Your task to perform on an android device: change notification settings in the gmail app Image 0: 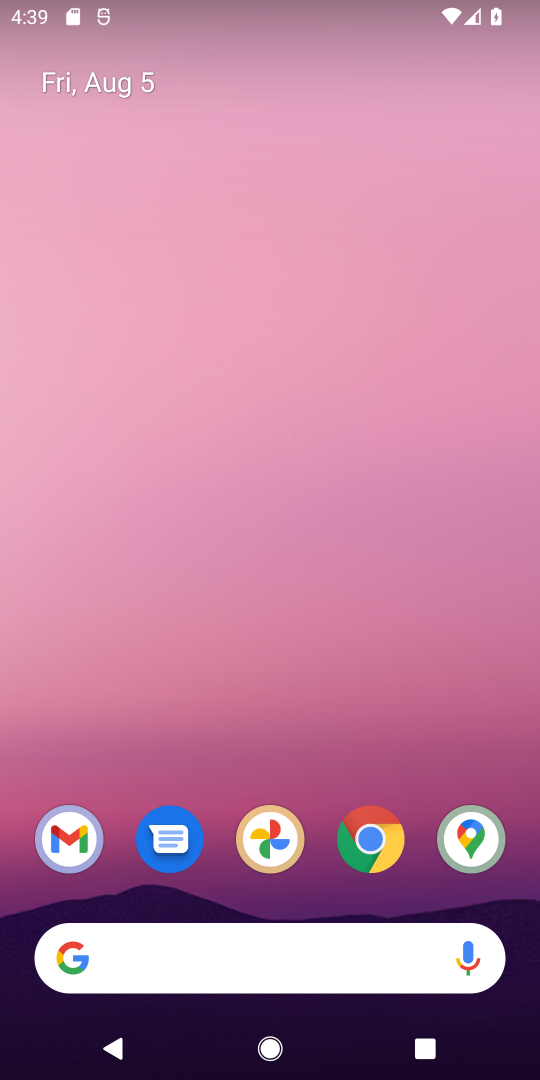
Step 0: drag from (306, 796) to (304, 146)
Your task to perform on an android device: change notification settings in the gmail app Image 1: 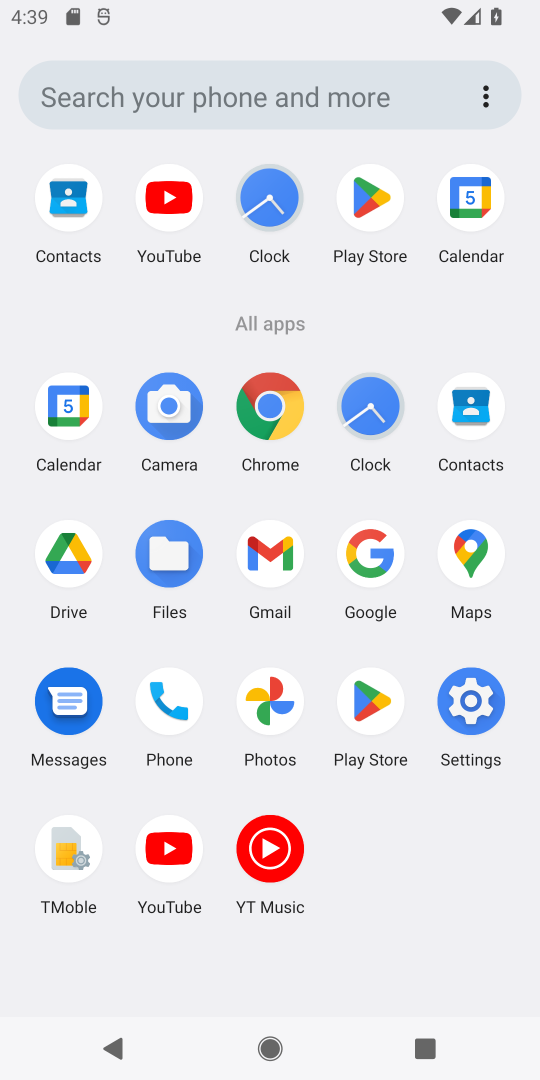
Step 1: click (270, 571)
Your task to perform on an android device: change notification settings in the gmail app Image 2: 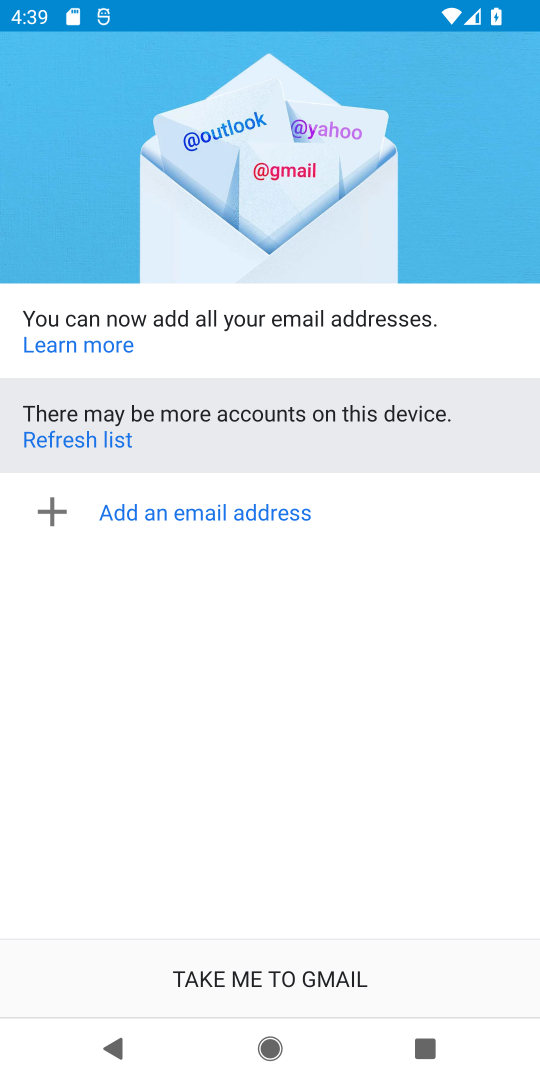
Step 2: task complete